Your task to perform on an android device: add a label to a message in the gmail app Image 0: 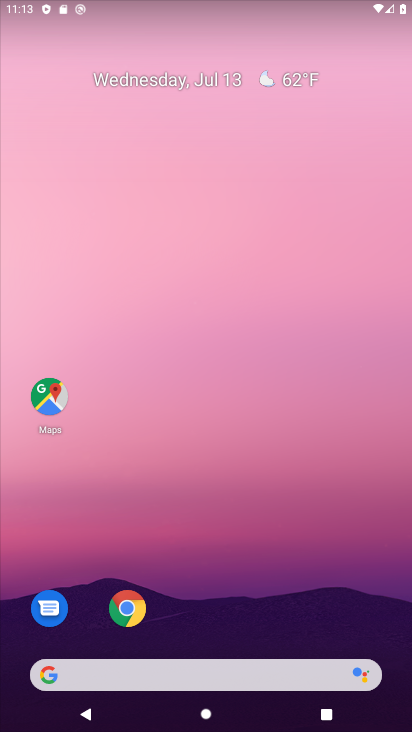
Step 0: drag from (236, 666) to (204, 184)
Your task to perform on an android device: add a label to a message in the gmail app Image 1: 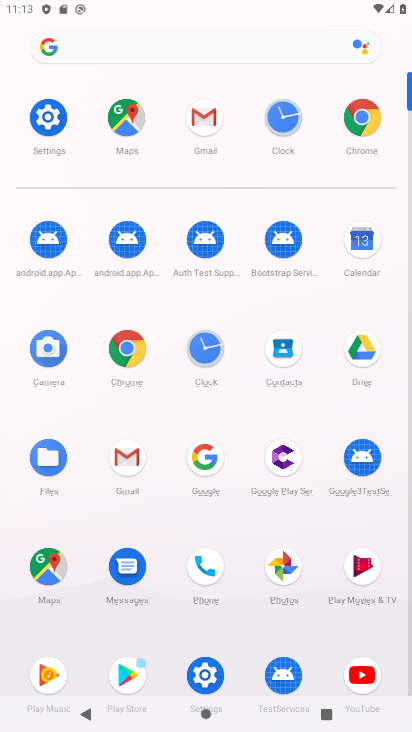
Step 1: click (126, 454)
Your task to perform on an android device: add a label to a message in the gmail app Image 2: 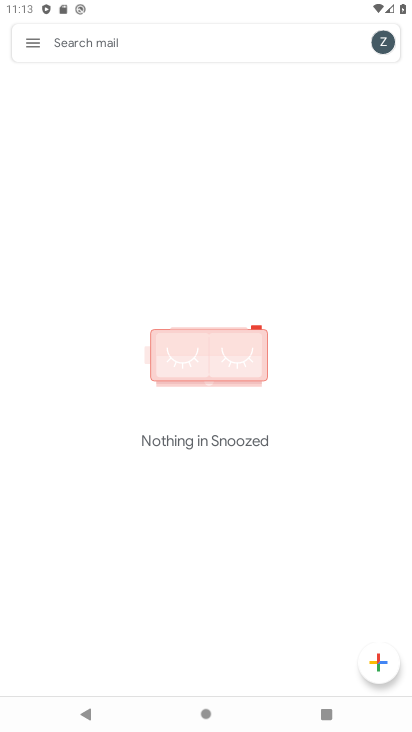
Step 2: click (45, 41)
Your task to perform on an android device: add a label to a message in the gmail app Image 3: 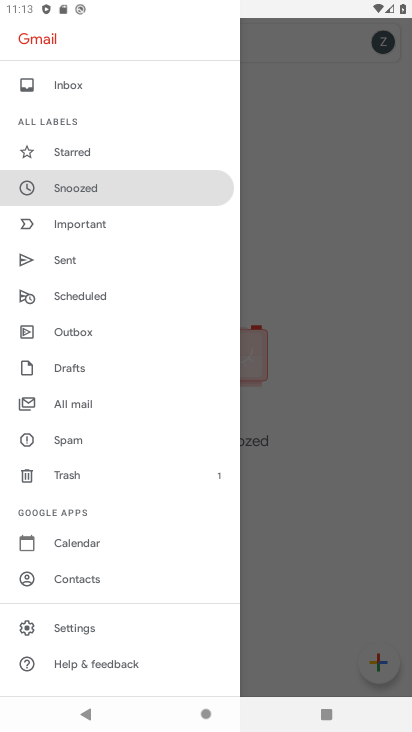
Step 3: click (65, 89)
Your task to perform on an android device: add a label to a message in the gmail app Image 4: 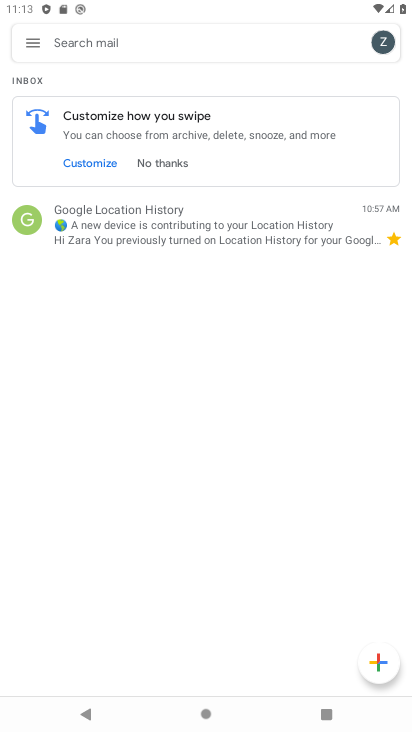
Step 4: click (209, 224)
Your task to perform on an android device: add a label to a message in the gmail app Image 5: 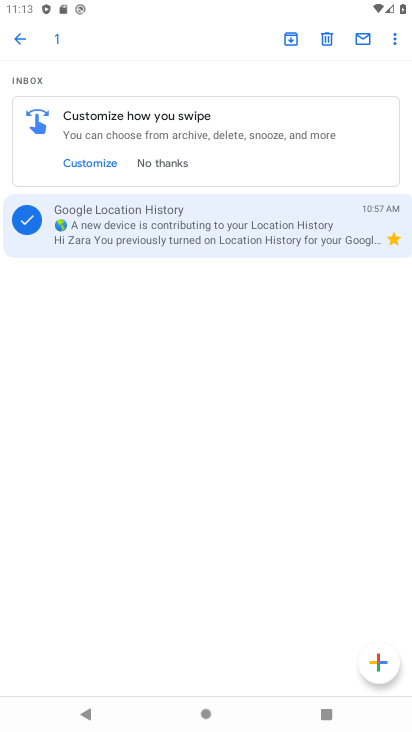
Step 5: click (392, 42)
Your task to perform on an android device: add a label to a message in the gmail app Image 6: 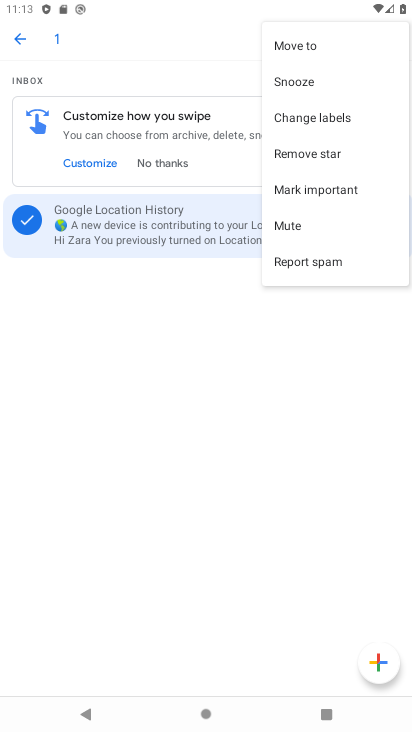
Step 6: click (328, 119)
Your task to perform on an android device: add a label to a message in the gmail app Image 7: 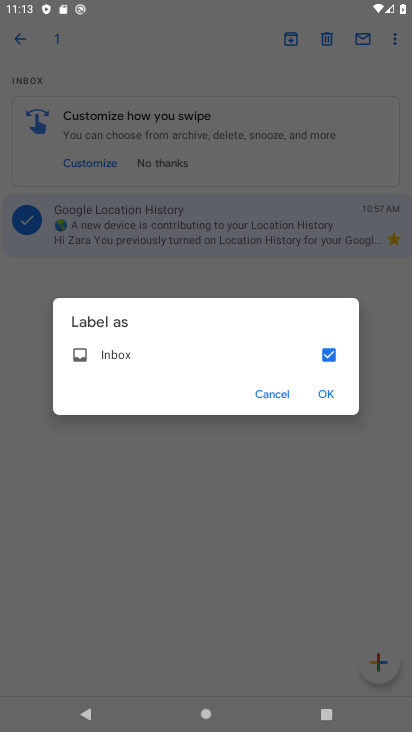
Step 7: click (325, 389)
Your task to perform on an android device: add a label to a message in the gmail app Image 8: 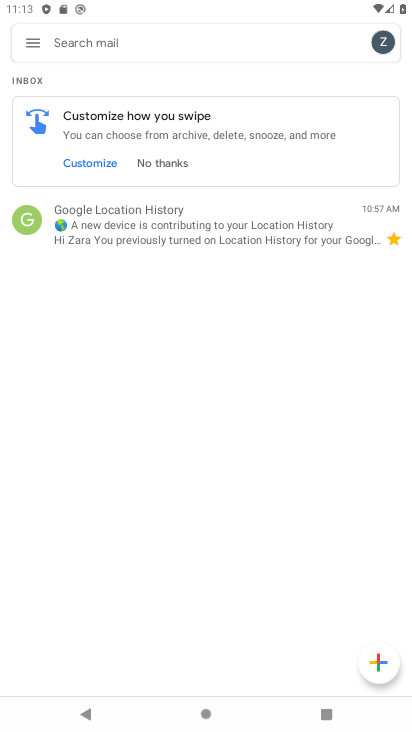
Step 8: task complete